Your task to perform on an android device: Search for "macbook pro 15 inch" on walmart, select the first entry, add it to the cart, then select checkout. Image 0: 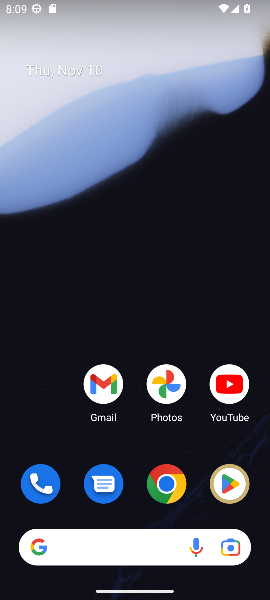
Step 0: click (173, 498)
Your task to perform on an android device: Search for "macbook pro 15 inch" on walmart, select the first entry, add it to the cart, then select checkout. Image 1: 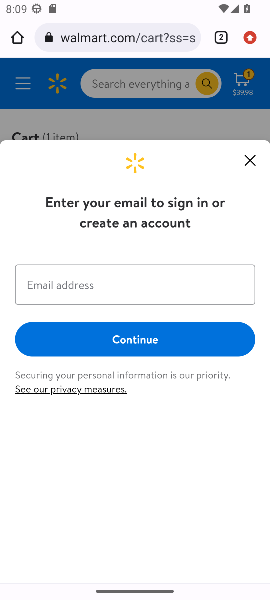
Step 1: click (148, 36)
Your task to perform on an android device: Search for "macbook pro 15 inch" on walmart, select the first entry, add it to the cart, then select checkout. Image 2: 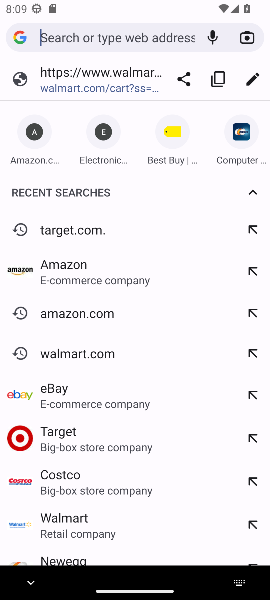
Step 2: click (68, 350)
Your task to perform on an android device: Search for "macbook pro 15 inch" on walmart, select the first entry, add it to the cart, then select checkout. Image 3: 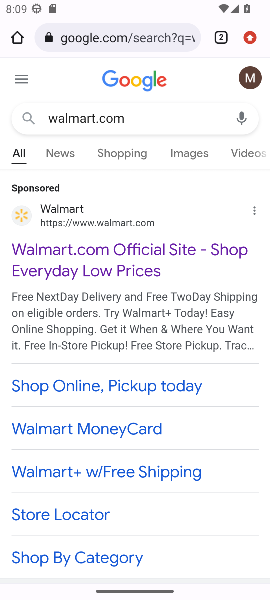
Step 3: click (71, 262)
Your task to perform on an android device: Search for "macbook pro 15 inch" on walmart, select the first entry, add it to the cart, then select checkout. Image 4: 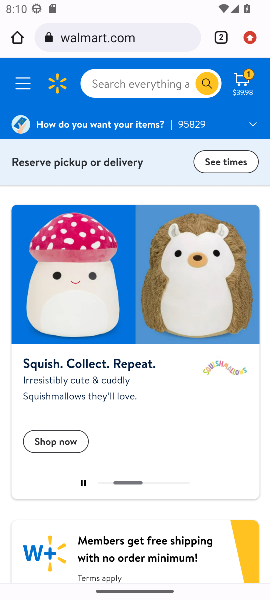
Step 4: click (114, 72)
Your task to perform on an android device: Search for "macbook pro 15 inch" on walmart, select the first entry, add it to the cart, then select checkout. Image 5: 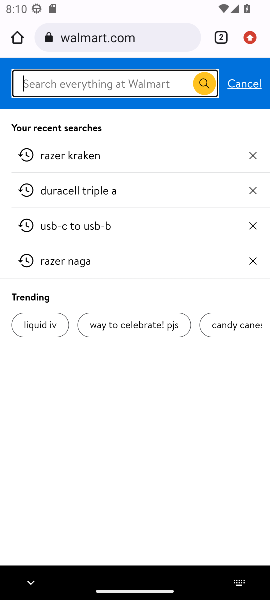
Step 5: type "macbook pro 15 inch"
Your task to perform on an android device: Search for "macbook pro 15 inch" on walmart, select the first entry, add it to the cart, then select checkout. Image 6: 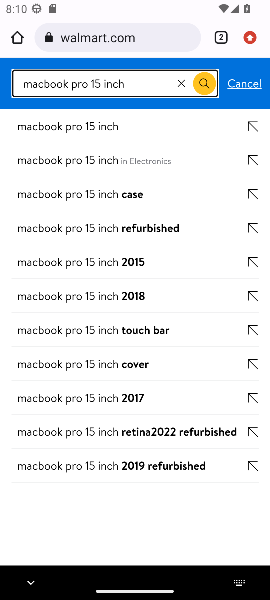
Step 6: click (96, 119)
Your task to perform on an android device: Search for "macbook pro 15 inch" on walmart, select the first entry, add it to the cart, then select checkout. Image 7: 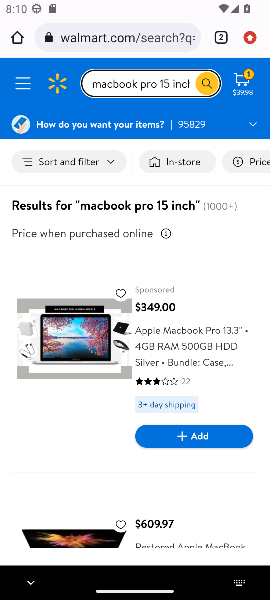
Step 7: task complete